Your task to perform on an android device: See recent photos Image 0: 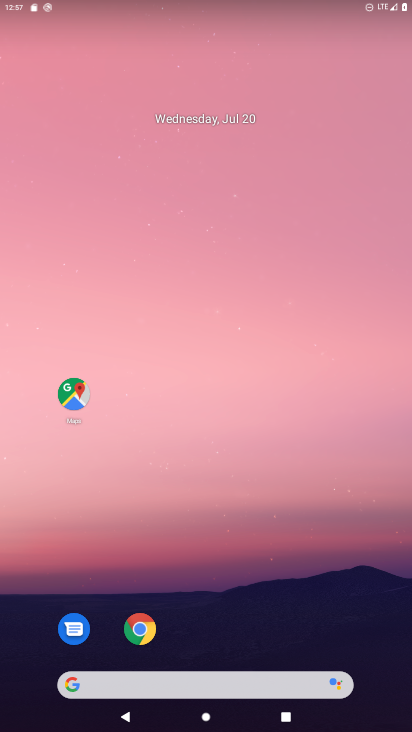
Step 0: click (207, 637)
Your task to perform on an android device: See recent photos Image 1: 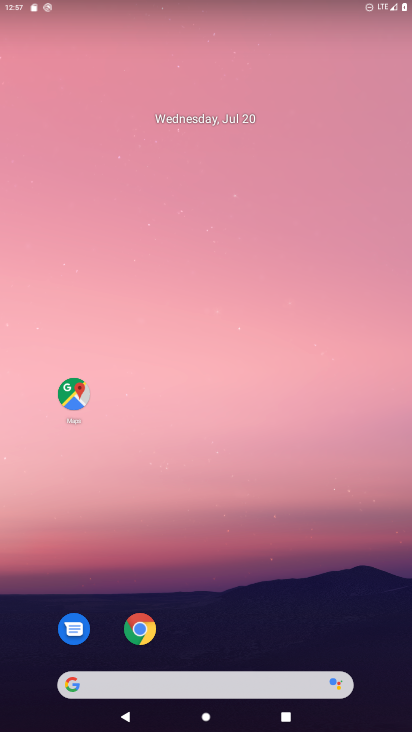
Step 1: drag from (209, 596) to (210, 238)
Your task to perform on an android device: See recent photos Image 2: 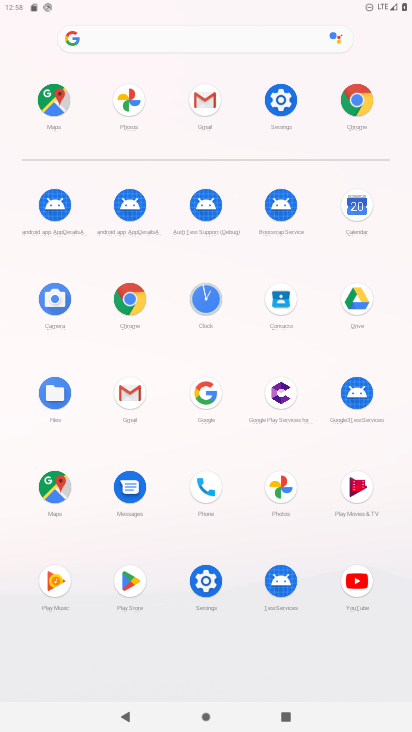
Step 2: click (275, 489)
Your task to perform on an android device: See recent photos Image 3: 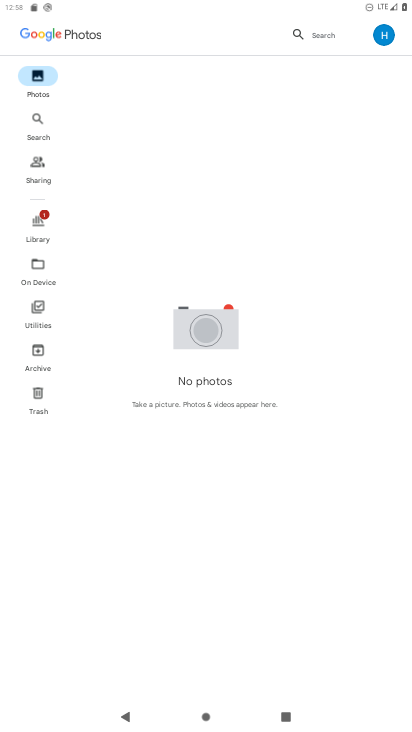
Step 3: click (36, 227)
Your task to perform on an android device: See recent photos Image 4: 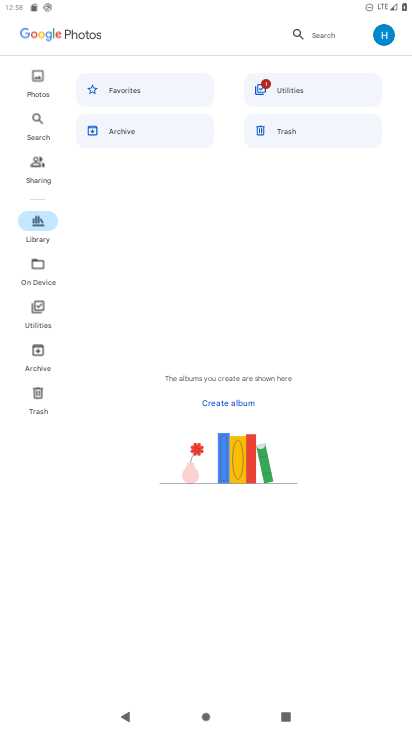
Step 4: click (292, 84)
Your task to perform on an android device: See recent photos Image 5: 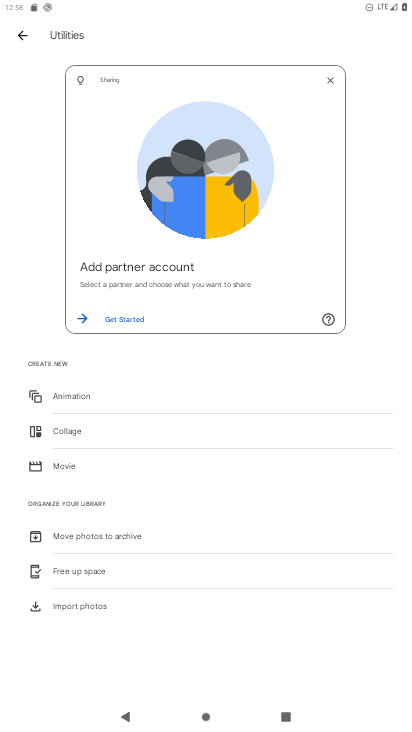
Step 5: task complete